Your task to perform on an android device: clear all cookies in the chrome app Image 0: 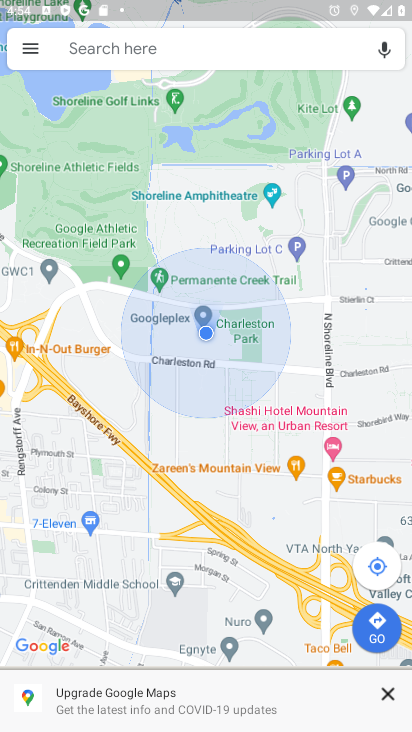
Step 0: press home button
Your task to perform on an android device: clear all cookies in the chrome app Image 1: 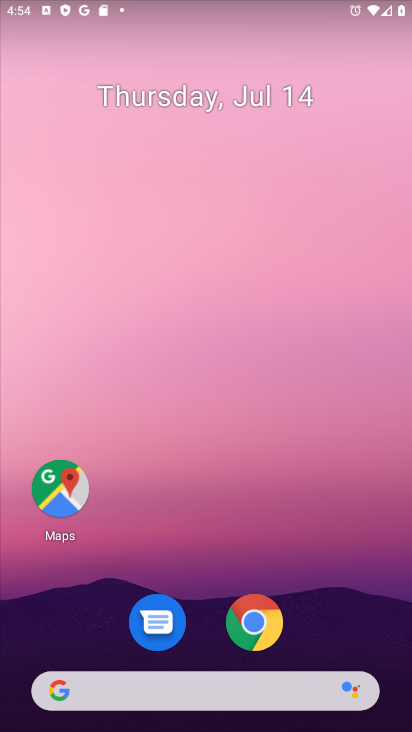
Step 1: click (258, 615)
Your task to perform on an android device: clear all cookies in the chrome app Image 2: 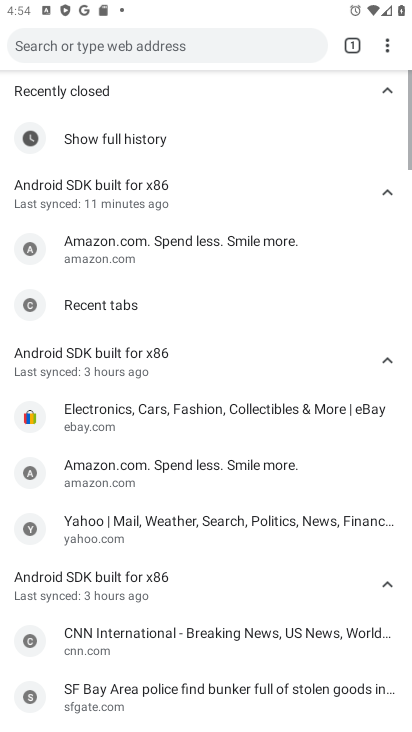
Step 2: click (379, 51)
Your task to perform on an android device: clear all cookies in the chrome app Image 3: 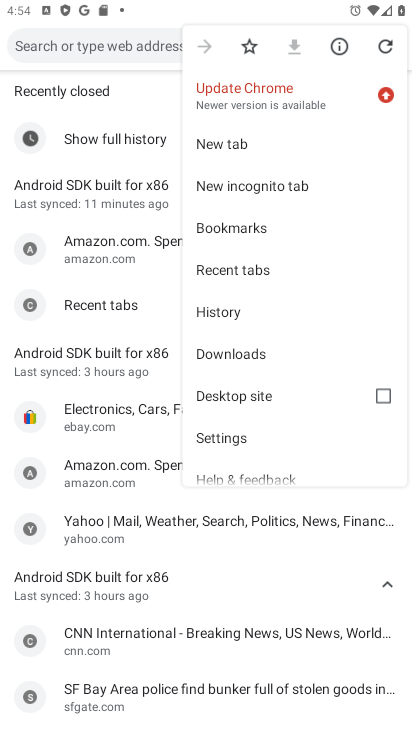
Step 3: click (208, 306)
Your task to perform on an android device: clear all cookies in the chrome app Image 4: 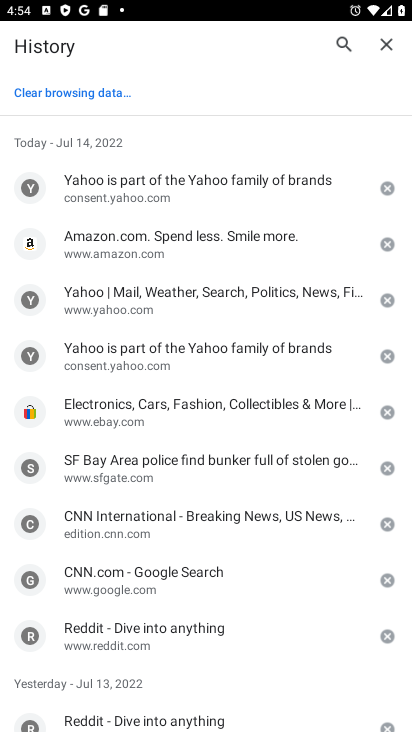
Step 4: click (100, 104)
Your task to perform on an android device: clear all cookies in the chrome app Image 5: 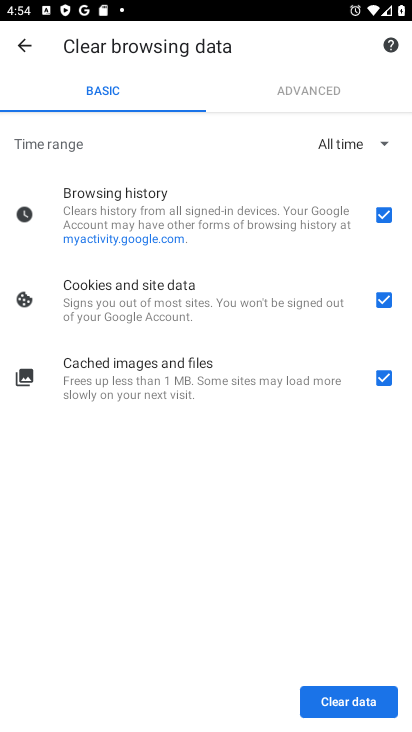
Step 5: click (386, 215)
Your task to perform on an android device: clear all cookies in the chrome app Image 6: 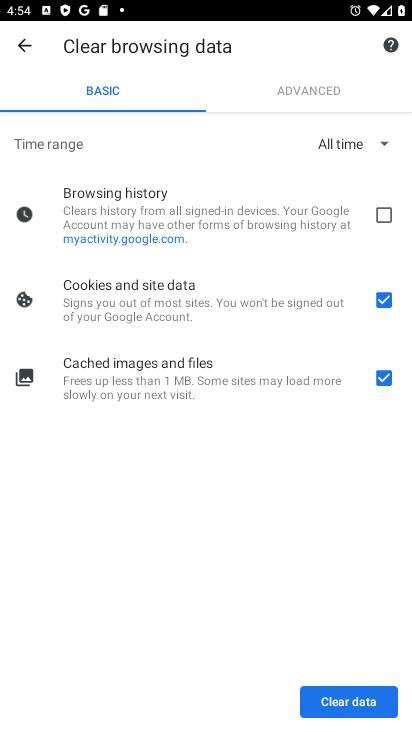
Step 6: click (387, 382)
Your task to perform on an android device: clear all cookies in the chrome app Image 7: 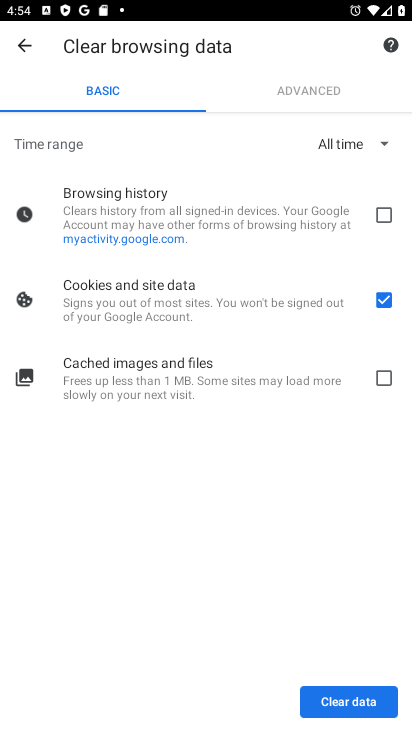
Step 7: click (361, 695)
Your task to perform on an android device: clear all cookies in the chrome app Image 8: 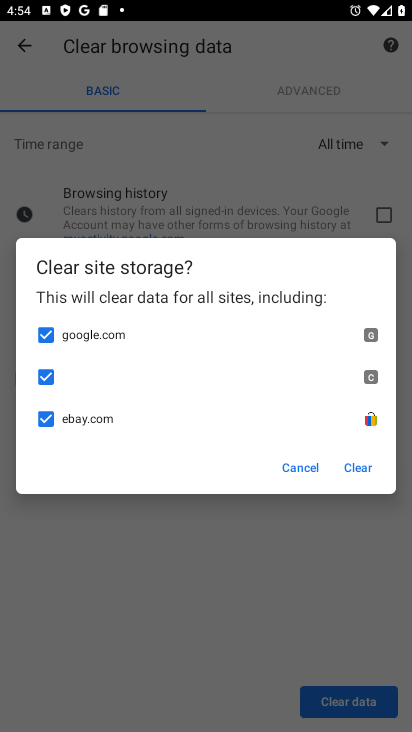
Step 8: click (364, 479)
Your task to perform on an android device: clear all cookies in the chrome app Image 9: 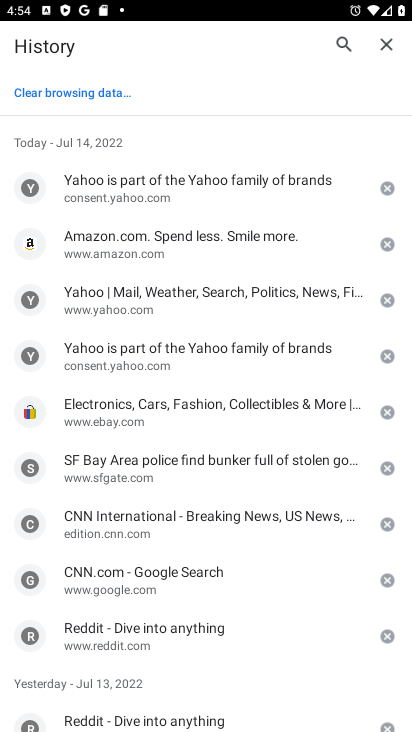
Step 9: task complete